Your task to perform on an android device: read, delete, or share a saved page in the chrome app Image 0: 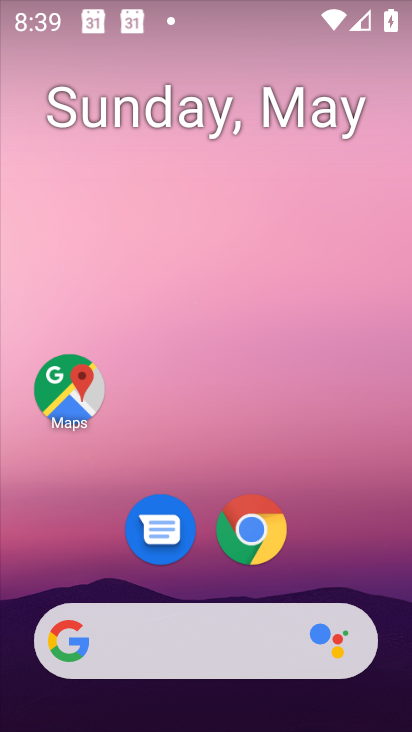
Step 0: click (233, 511)
Your task to perform on an android device: read, delete, or share a saved page in the chrome app Image 1: 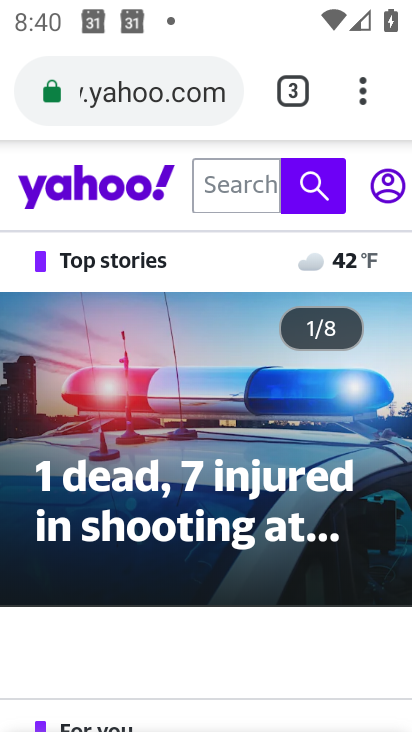
Step 1: click (366, 83)
Your task to perform on an android device: read, delete, or share a saved page in the chrome app Image 2: 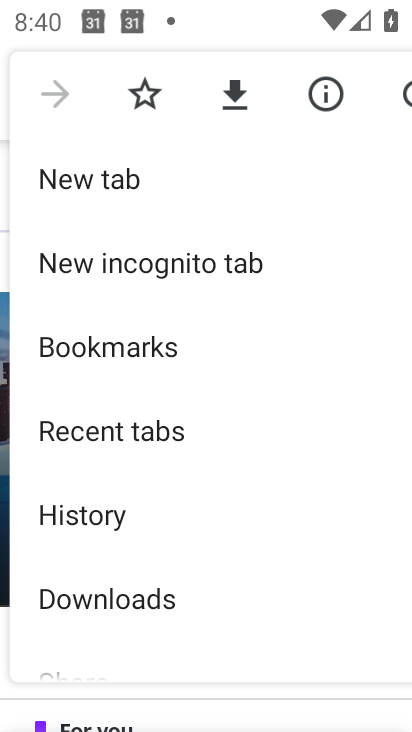
Step 2: click (198, 608)
Your task to perform on an android device: read, delete, or share a saved page in the chrome app Image 3: 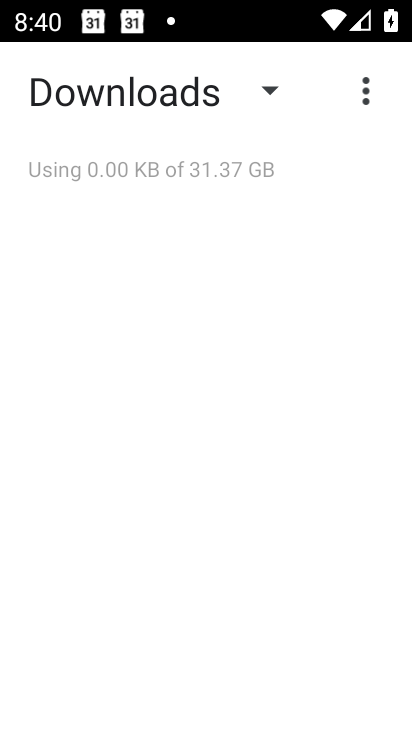
Step 3: task complete